Your task to perform on an android device: Search for Mexican restaurants on Maps Image 0: 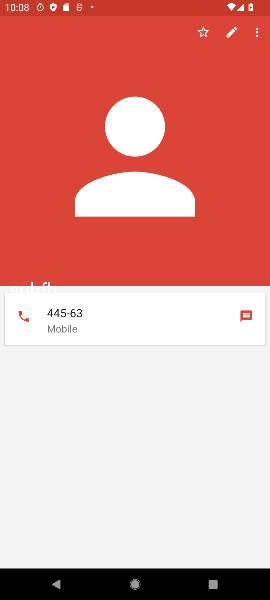
Step 0: press home button
Your task to perform on an android device: Search for Mexican restaurants on Maps Image 1: 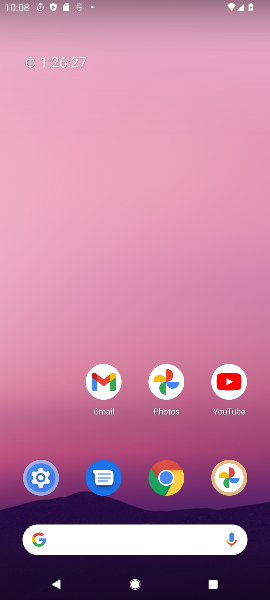
Step 1: drag from (134, 458) to (130, 130)
Your task to perform on an android device: Search for Mexican restaurants on Maps Image 2: 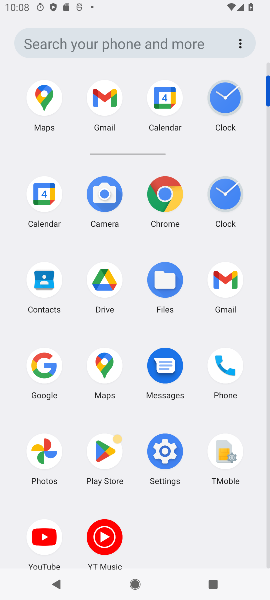
Step 2: click (107, 364)
Your task to perform on an android device: Search for Mexican restaurants on Maps Image 3: 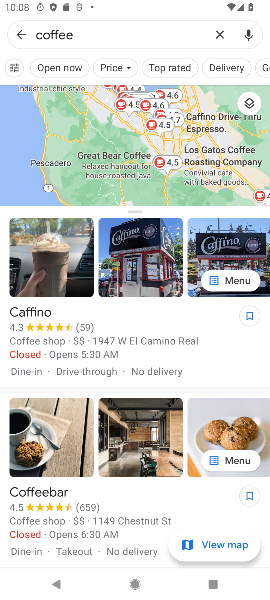
Step 3: click (220, 29)
Your task to perform on an android device: Search for Mexican restaurants on Maps Image 4: 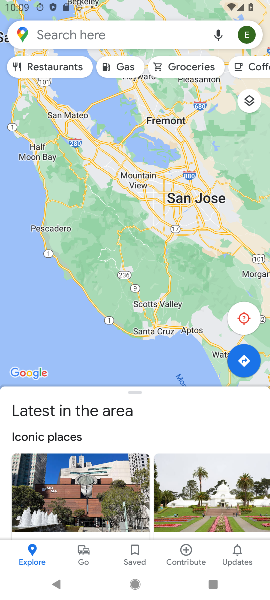
Step 4: click (92, 30)
Your task to perform on an android device: Search for Mexican restaurants on Maps Image 5: 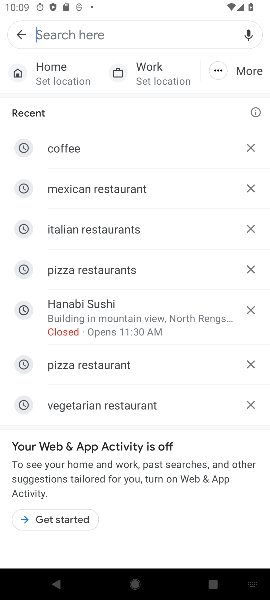
Step 5: type "Mexican restaurants"
Your task to perform on an android device: Search for Mexican restaurants on Maps Image 6: 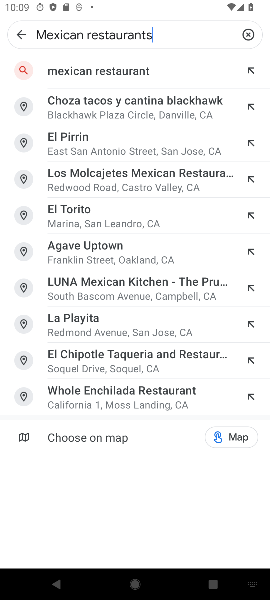
Step 6: click (103, 68)
Your task to perform on an android device: Search for Mexican restaurants on Maps Image 7: 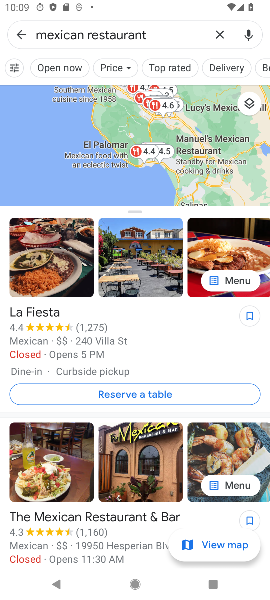
Step 7: task complete